Your task to perform on an android device: turn off location history Image 0: 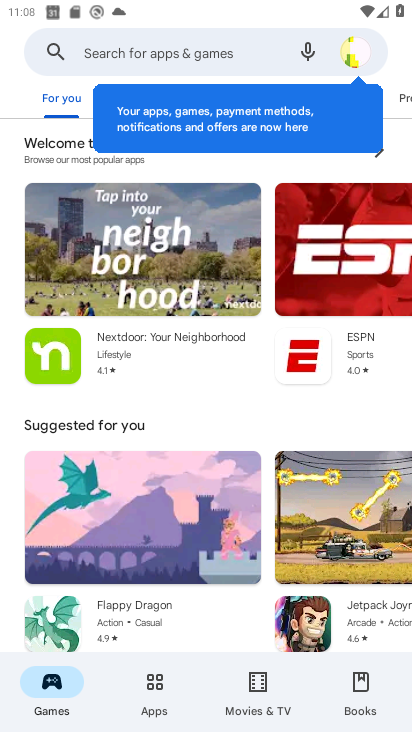
Step 0: press back button
Your task to perform on an android device: turn off location history Image 1: 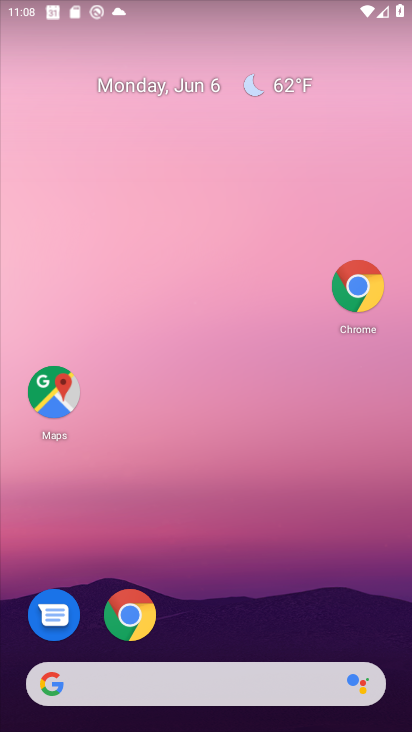
Step 1: press home button
Your task to perform on an android device: turn off location history Image 2: 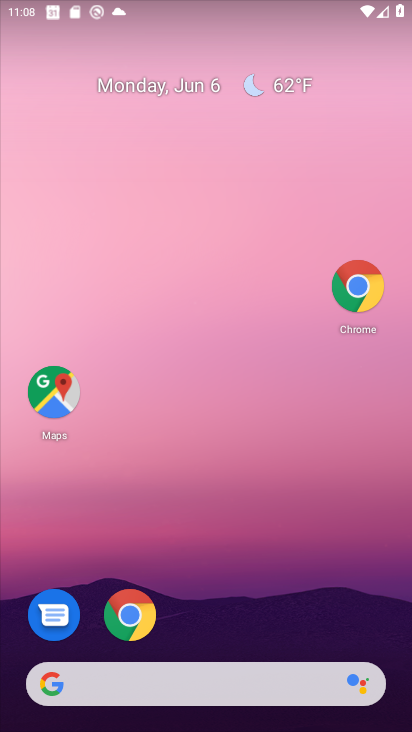
Step 2: drag from (274, 566) to (226, 148)
Your task to perform on an android device: turn off location history Image 3: 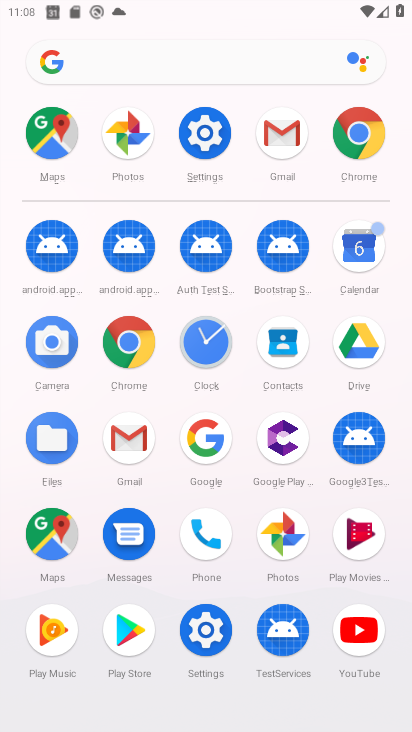
Step 3: click (210, 124)
Your task to perform on an android device: turn off location history Image 4: 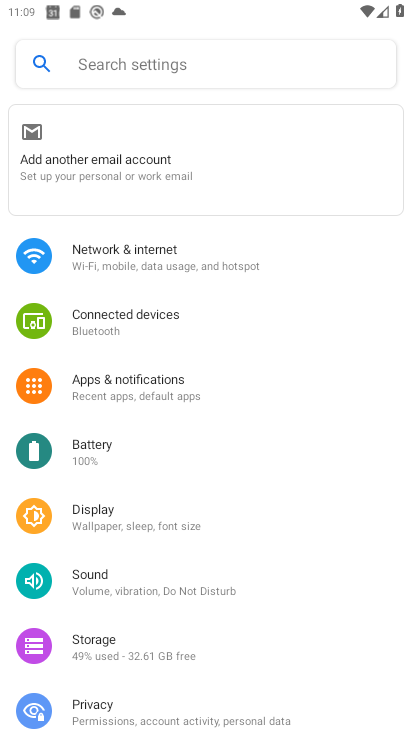
Step 4: drag from (136, 610) to (132, 278)
Your task to perform on an android device: turn off location history Image 5: 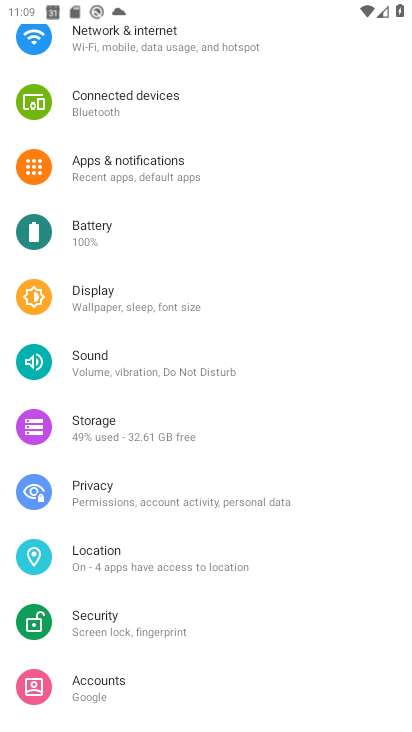
Step 5: drag from (188, 561) to (188, 304)
Your task to perform on an android device: turn off location history Image 6: 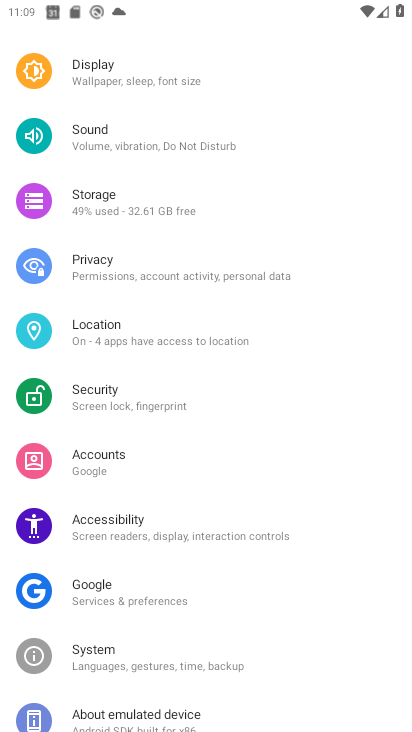
Step 6: click (127, 328)
Your task to perform on an android device: turn off location history Image 7: 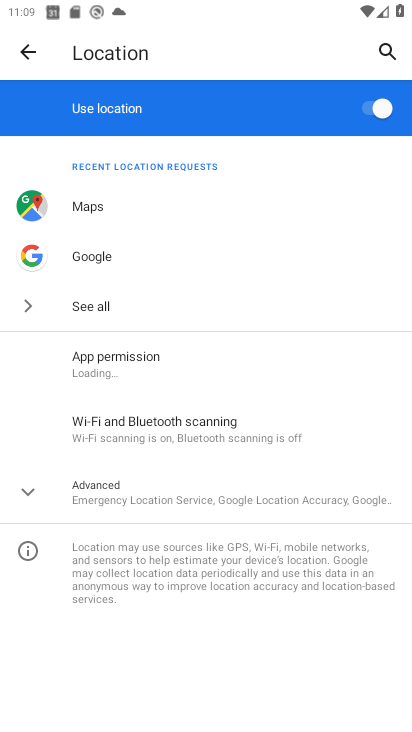
Step 7: click (126, 497)
Your task to perform on an android device: turn off location history Image 8: 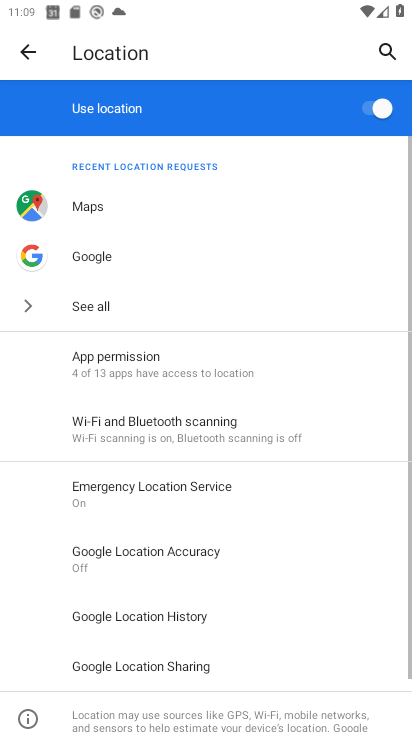
Step 8: click (116, 549)
Your task to perform on an android device: turn off location history Image 9: 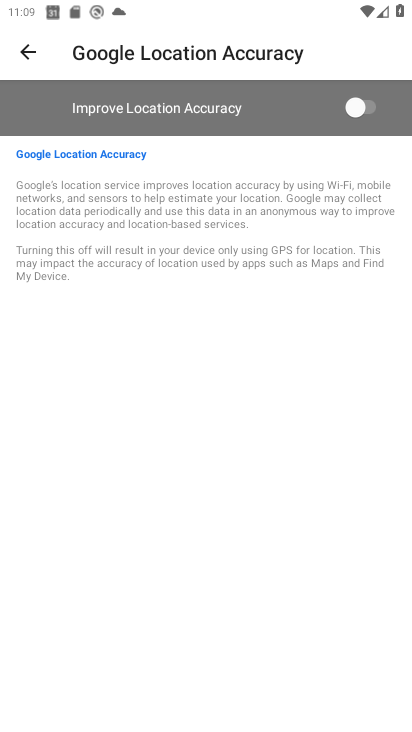
Step 9: task complete